Your task to perform on an android device: Search for the new Nike Air Max 270 on Nike.com Image 0: 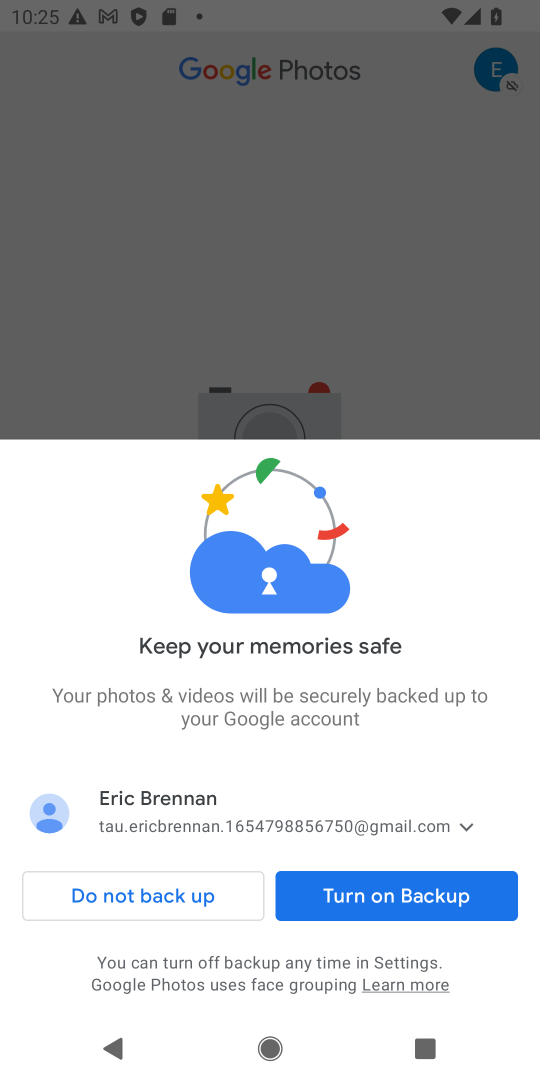
Step 0: press home button
Your task to perform on an android device: Search for the new Nike Air Max 270 on Nike.com Image 1: 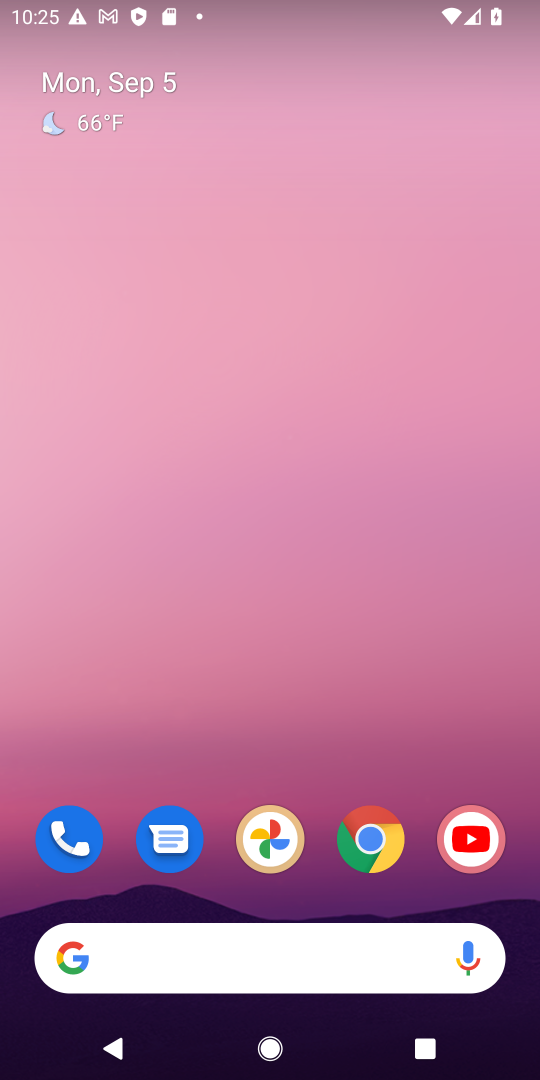
Step 1: drag from (204, 929) to (306, 263)
Your task to perform on an android device: Search for the new Nike Air Max 270 on Nike.com Image 2: 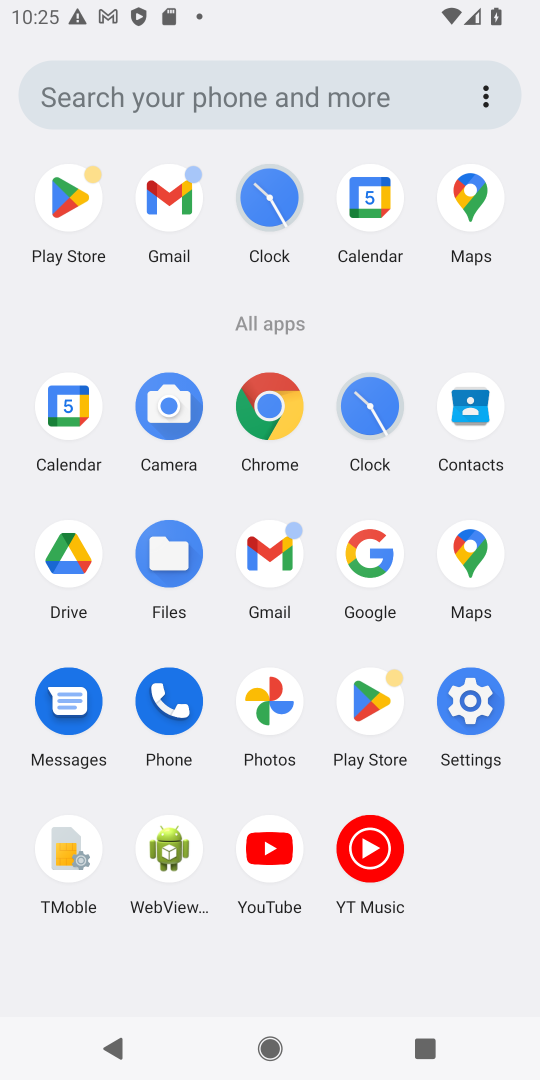
Step 2: click (364, 553)
Your task to perform on an android device: Search for the new Nike Air Max 270 on Nike.com Image 3: 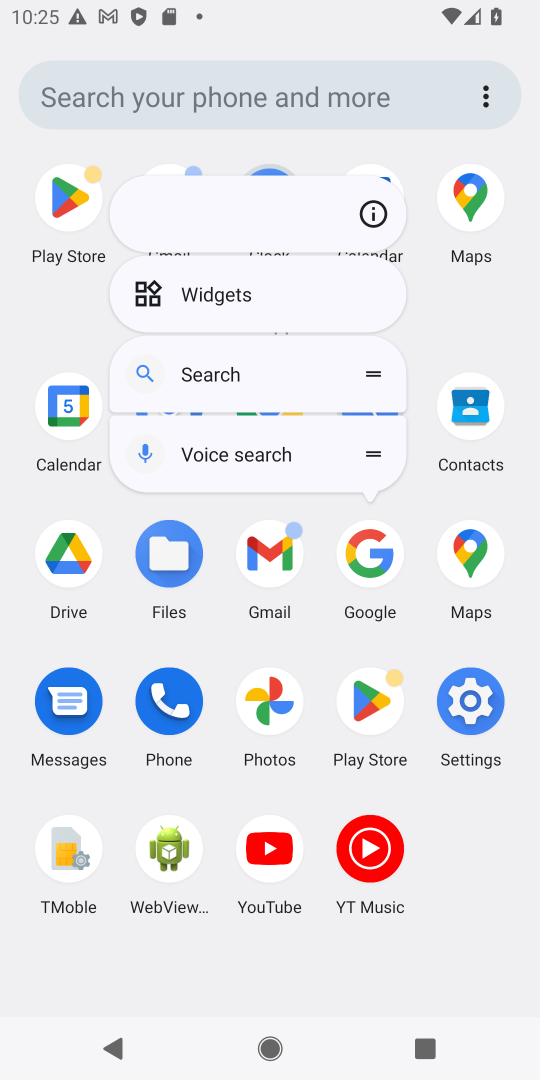
Step 3: click (382, 562)
Your task to perform on an android device: Search for the new Nike Air Max 270 on Nike.com Image 4: 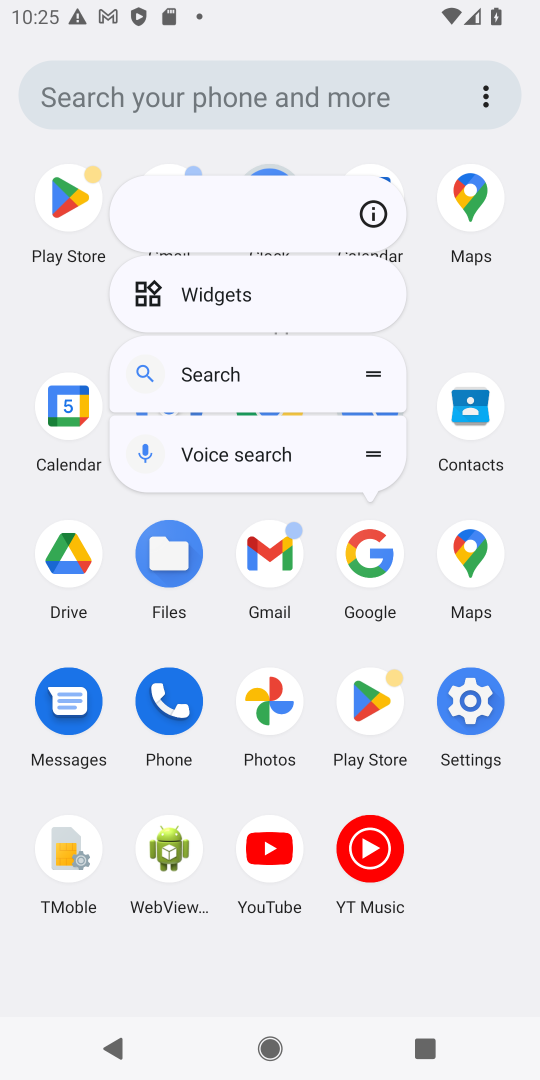
Step 4: click (374, 551)
Your task to perform on an android device: Search for the new Nike Air Max 270 on Nike.com Image 5: 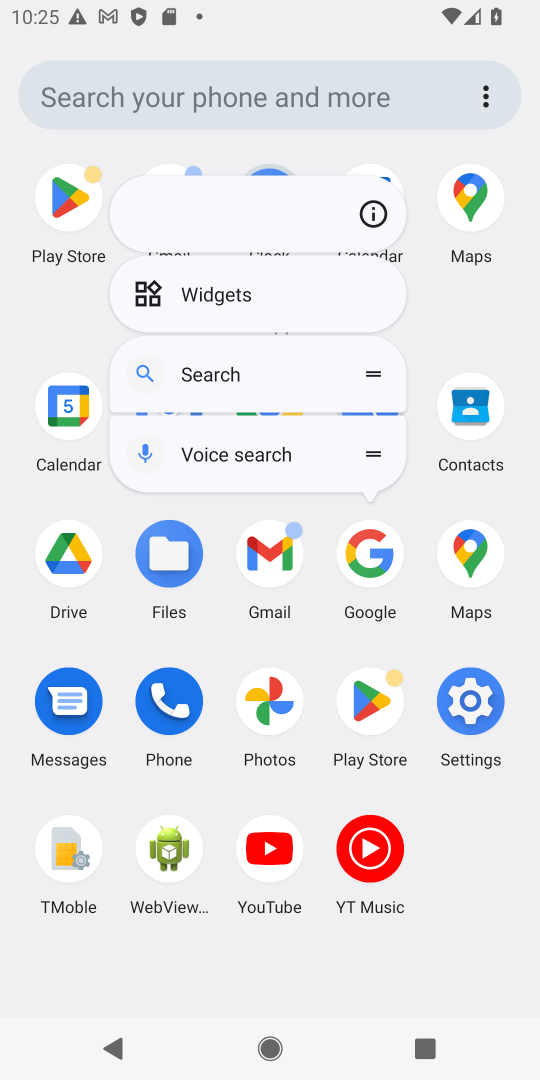
Step 5: click (367, 565)
Your task to perform on an android device: Search for the new Nike Air Max 270 on Nike.com Image 6: 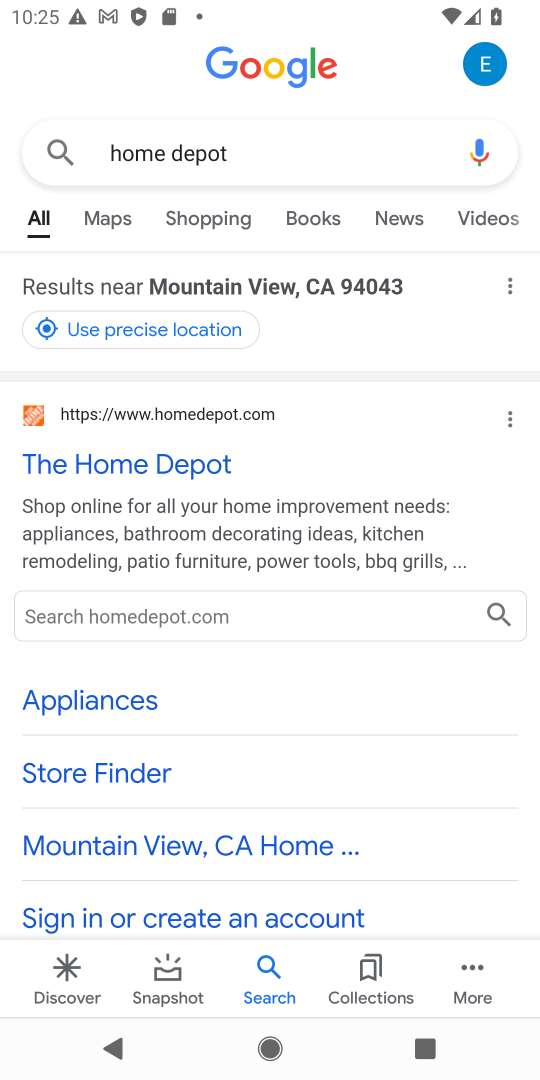
Step 6: click (364, 542)
Your task to perform on an android device: Search for the new Nike Air Max 270 on Nike.com Image 7: 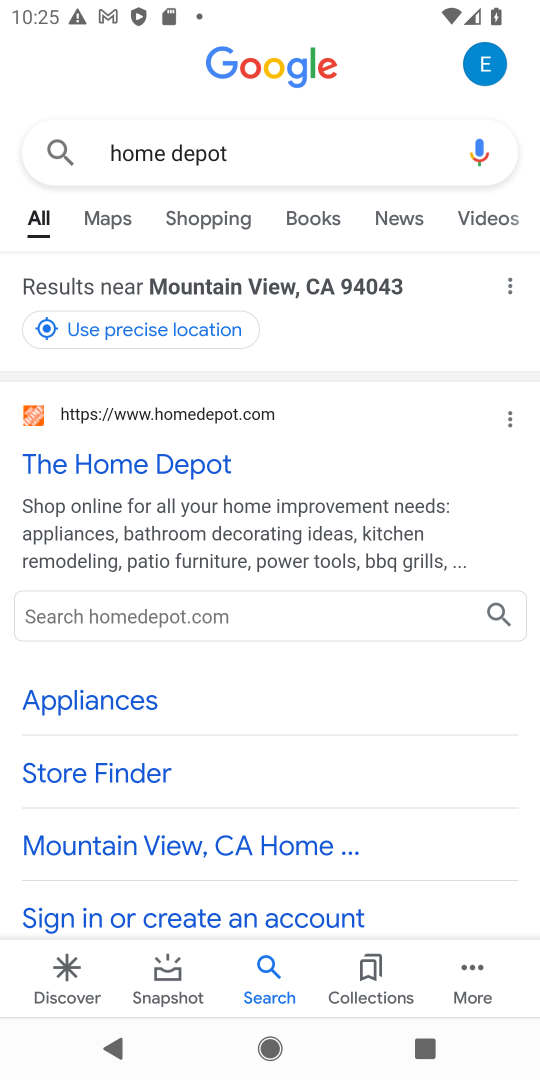
Step 7: click (223, 142)
Your task to perform on an android device: Search for the new Nike Air Max 270 on Nike.com Image 8: 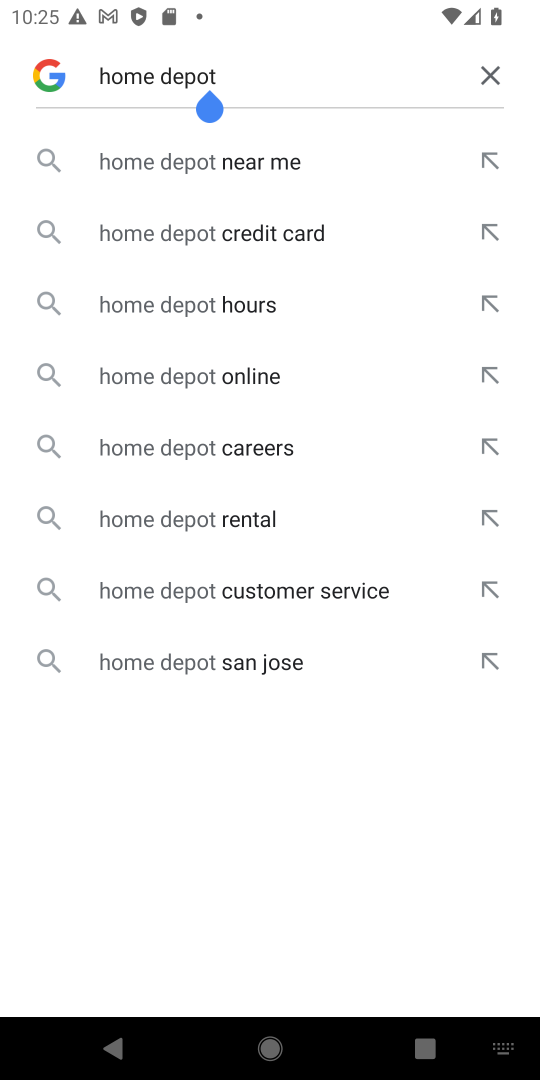
Step 8: click (494, 84)
Your task to perform on an android device: Search for the new Nike Air Max 270 on Nike.com Image 9: 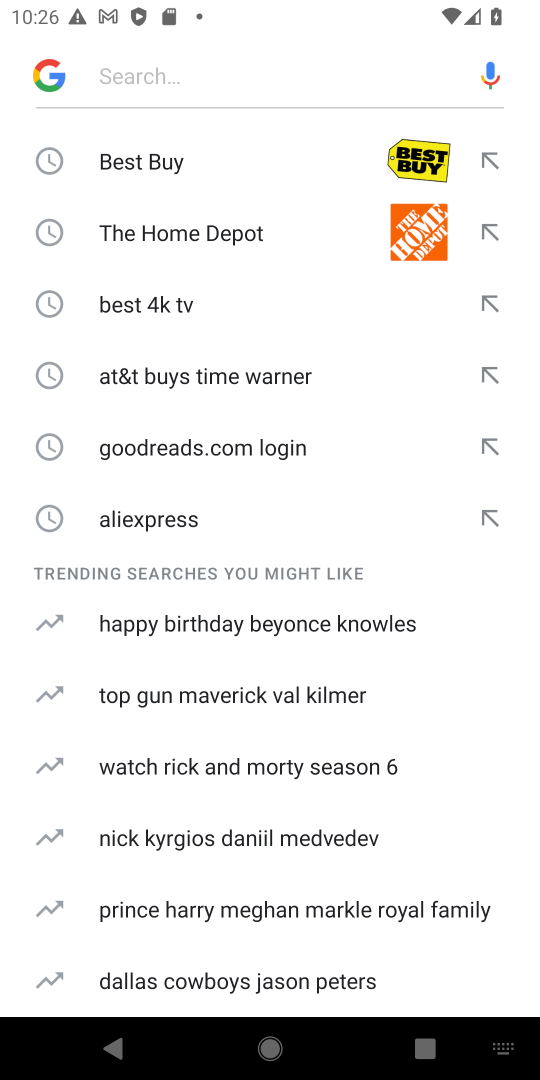
Step 9: type "Nike.com"
Your task to perform on an android device: Search for the new Nike Air Max 270 on Nike.com Image 10: 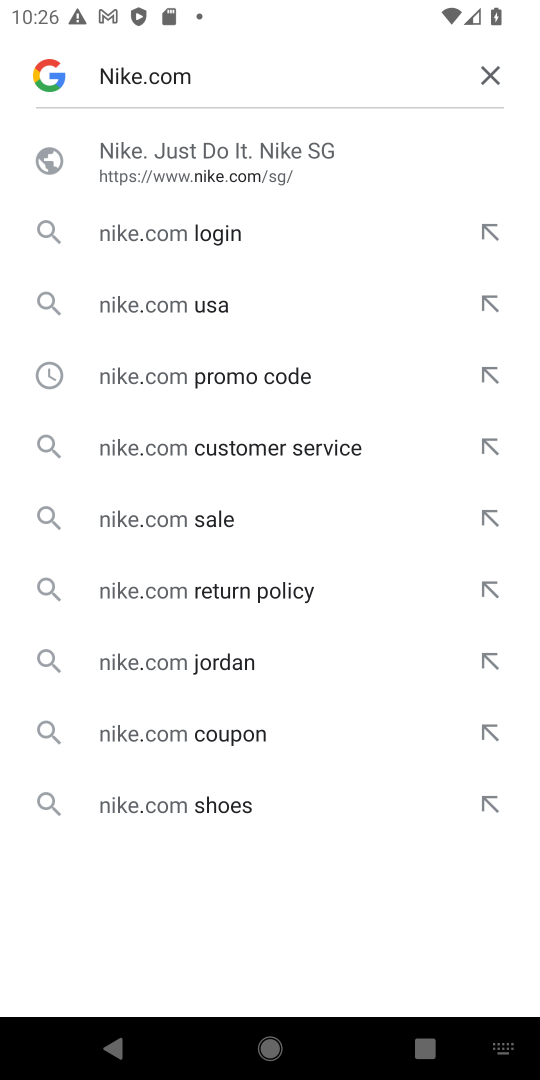
Step 10: click (196, 157)
Your task to perform on an android device: Search for the new Nike Air Max 270 on Nike.com Image 11: 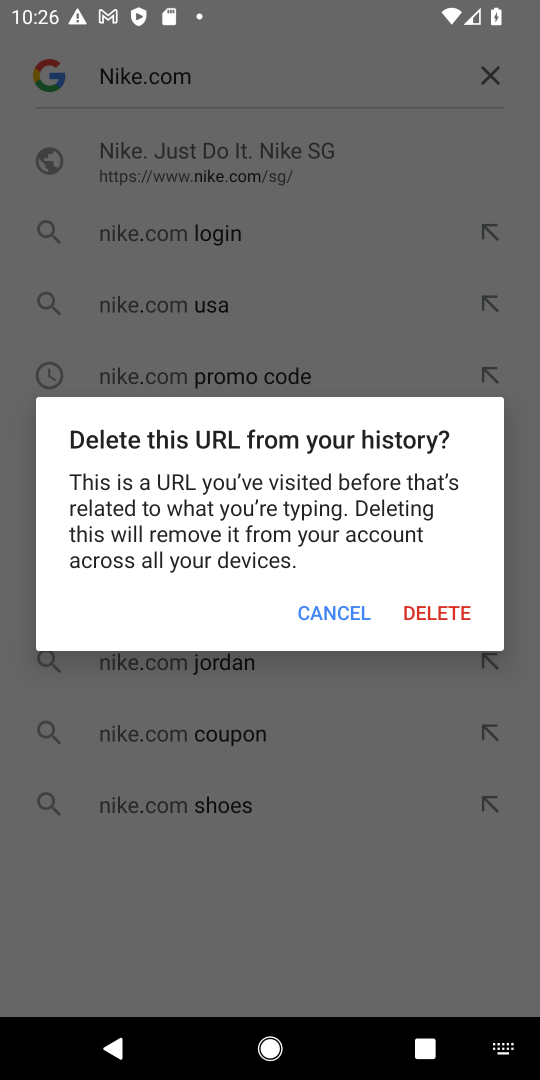
Step 11: click (314, 619)
Your task to perform on an android device: Search for the new Nike Air Max 270 on Nike.com Image 12: 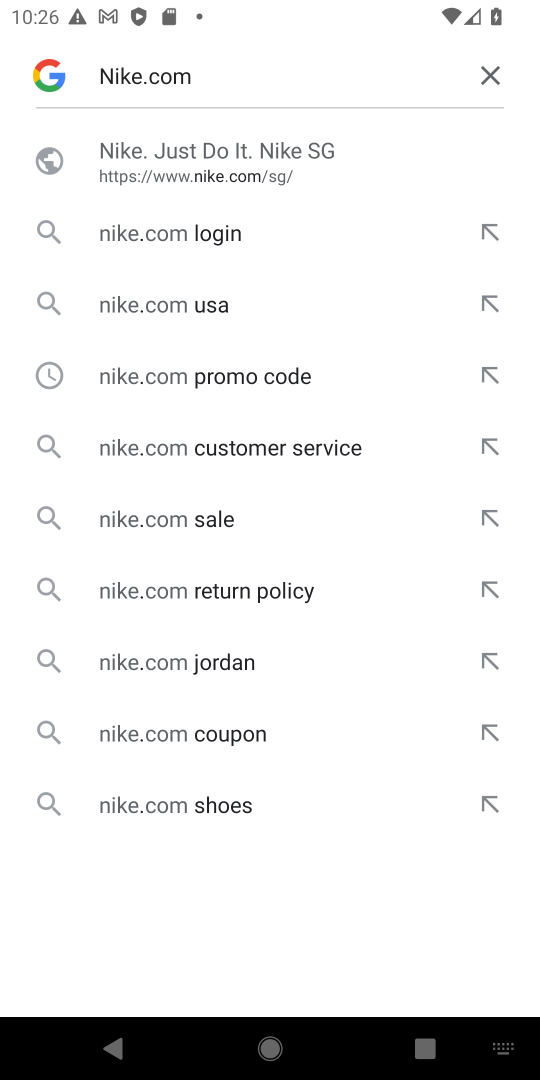
Step 12: click (159, 184)
Your task to perform on an android device: Search for the new Nike Air Max 270 on Nike.com Image 13: 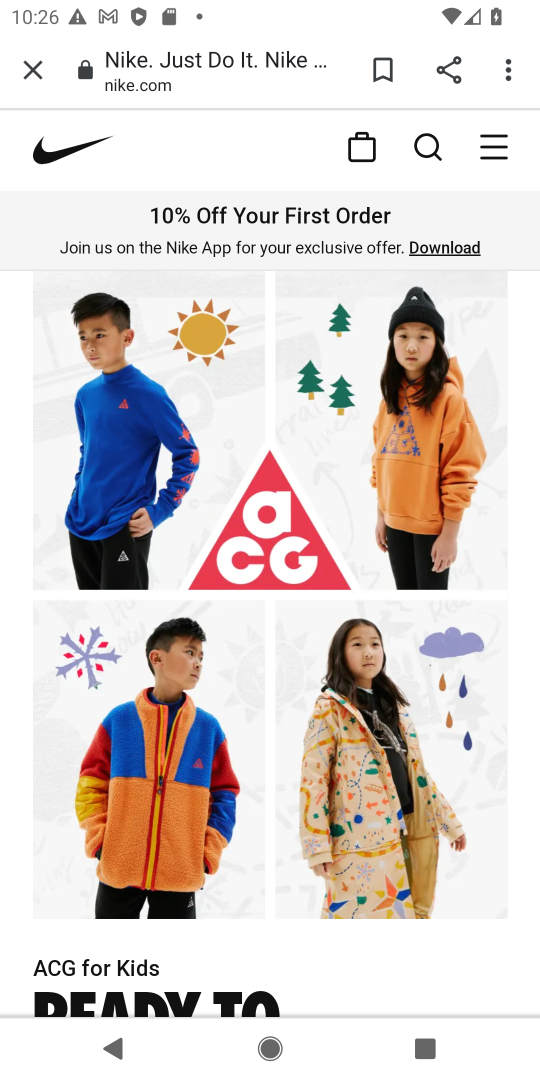
Step 13: click (427, 145)
Your task to perform on an android device: Search for the new Nike Air Max 270 on Nike.com Image 14: 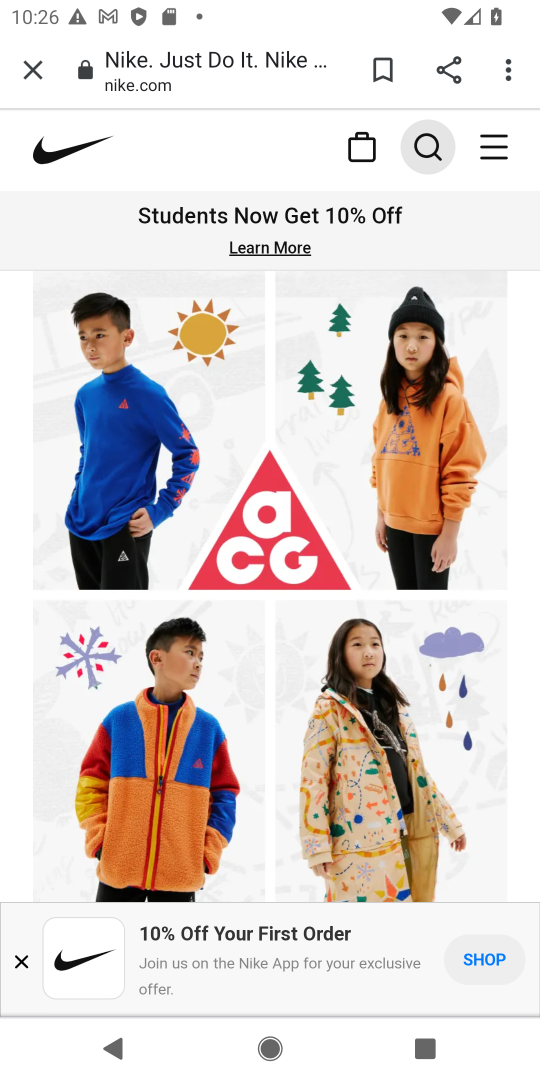
Step 14: click (433, 153)
Your task to perform on an android device: Search for the new Nike Air Max 270 on Nike.com Image 15: 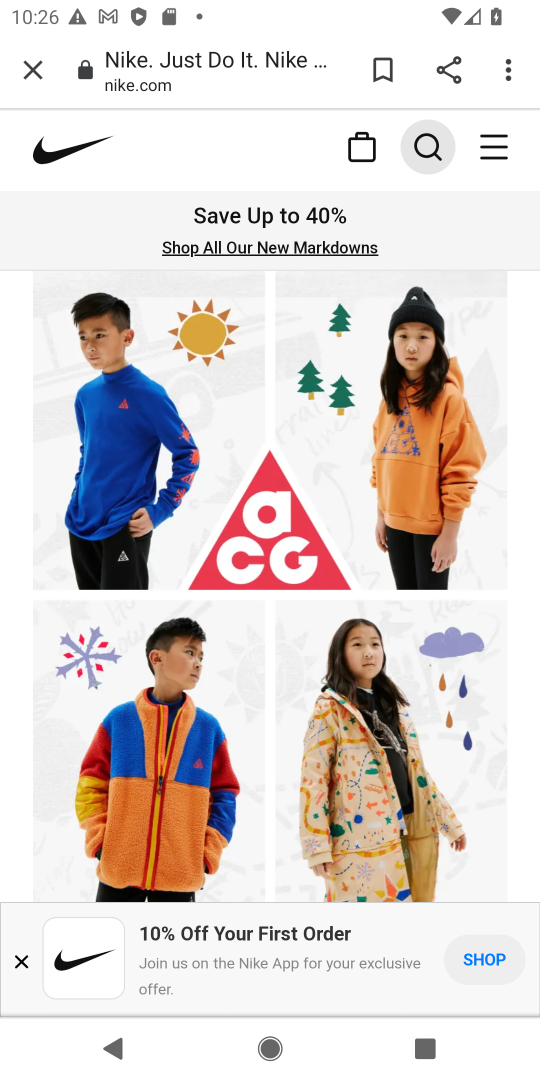
Step 15: click (429, 136)
Your task to perform on an android device: Search for the new Nike Air Max 270 on Nike.com Image 16: 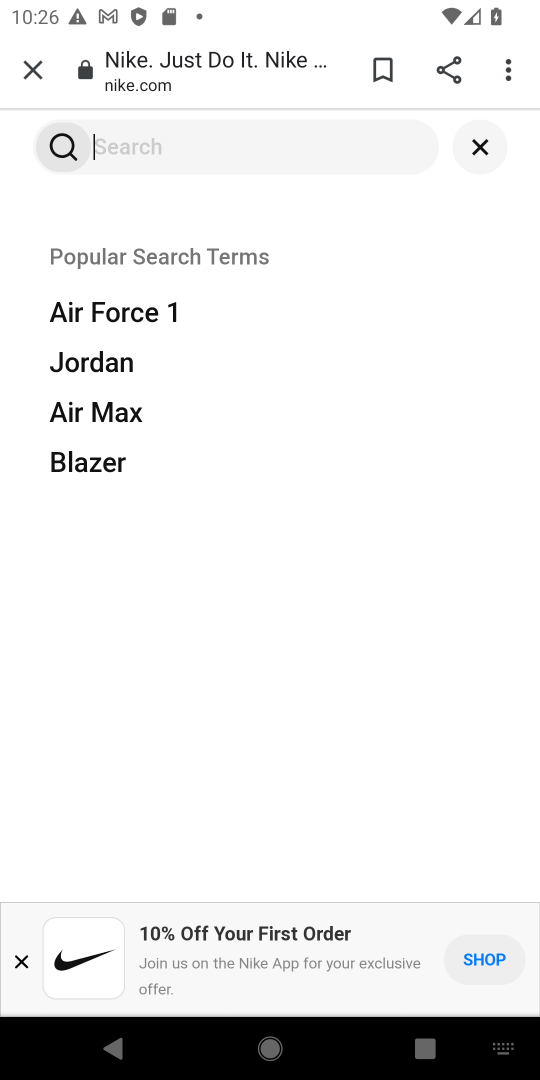
Step 16: type "new Nike Air Max 270"
Your task to perform on an android device: Search for the new Nike Air Max 270 on Nike.com Image 17: 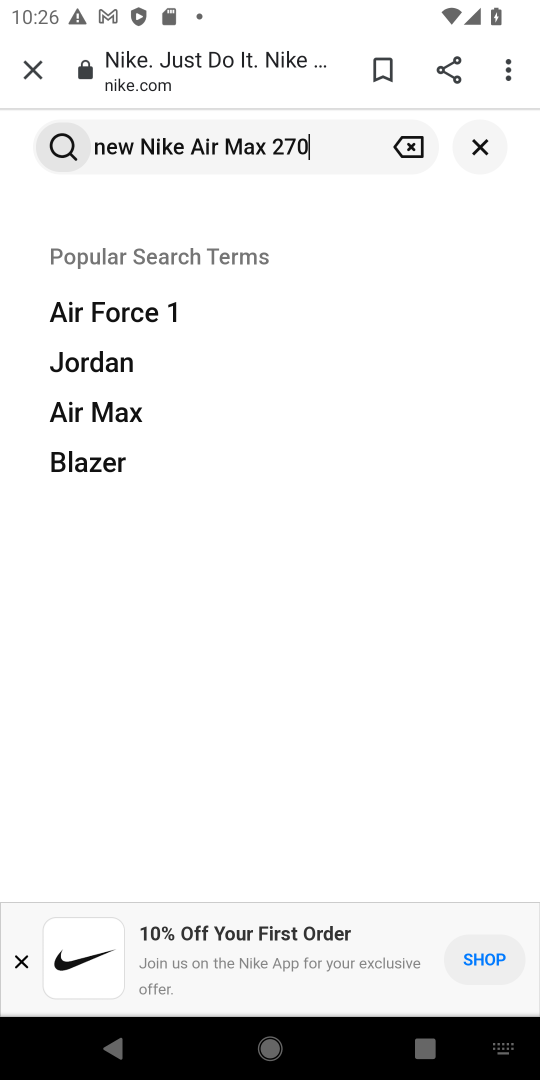
Step 17: click (93, 316)
Your task to perform on an android device: Search for the new Nike Air Max 270 on Nike.com Image 18: 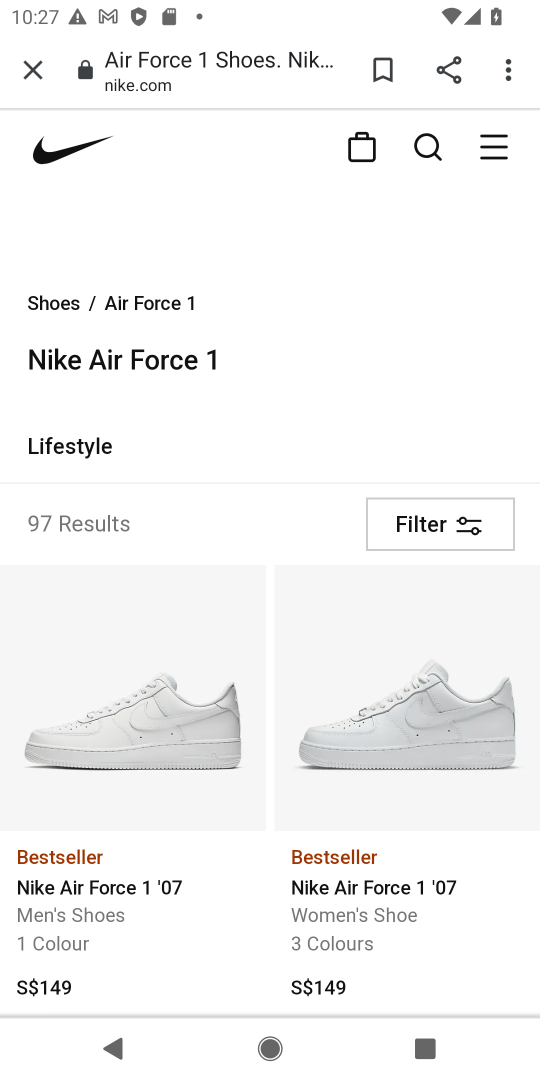
Step 18: task complete